Your task to perform on an android device: Go to sound settings Image 0: 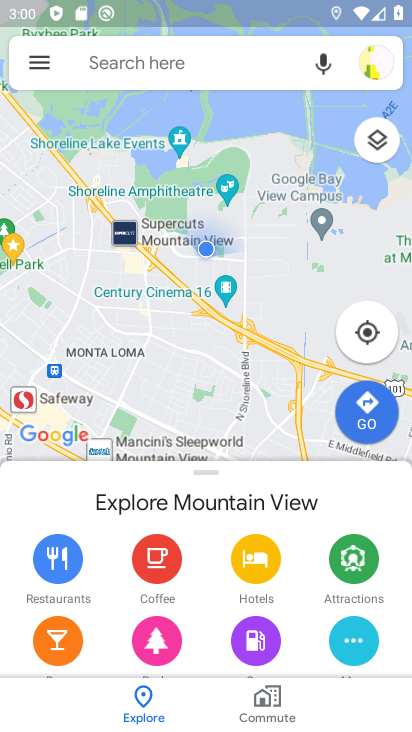
Step 0: press home button
Your task to perform on an android device: Go to sound settings Image 1: 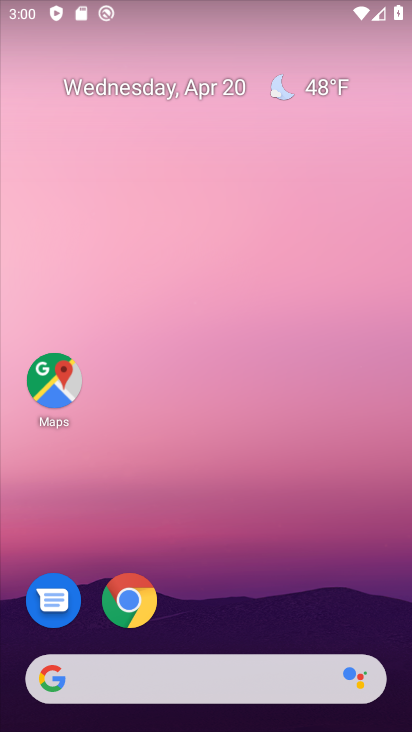
Step 1: drag from (314, 525) to (337, 113)
Your task to perform on an android device: Go to sound settings Image 2: 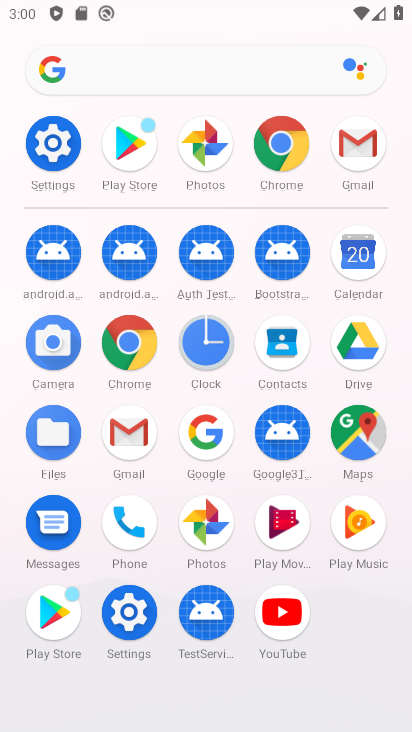
Step 2: click (66, 161)
Your task to perform on an android device: Go to sound settings Image 3: 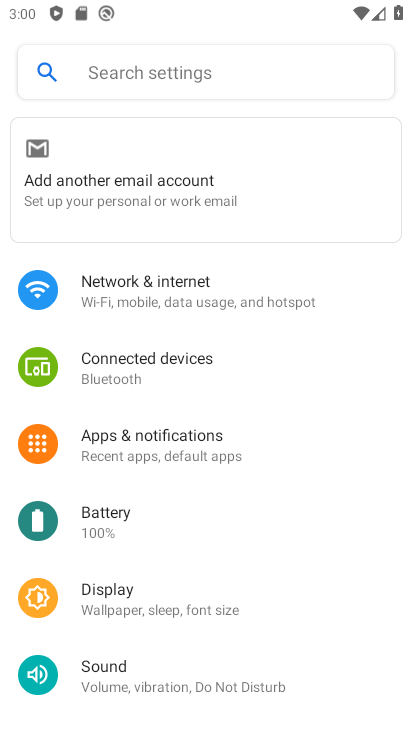
Step 3: drag from (120, 616) to (200, 232)
Your task to perform on an android device: Go to sound settings Image 4: 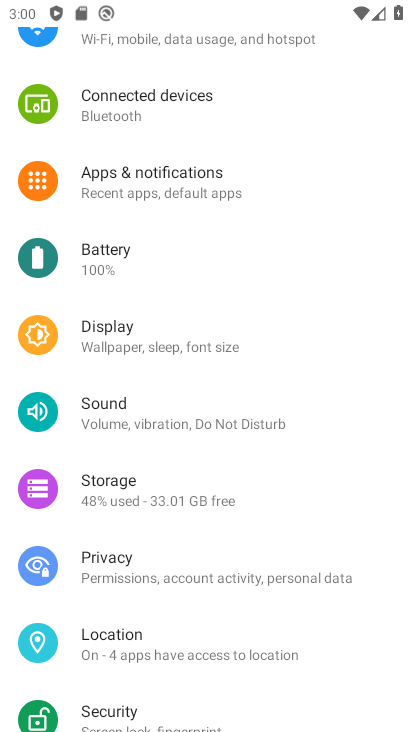
Step 4: click (130, 426)
Your task to perform on an android device: Go to sound settings Image 5: 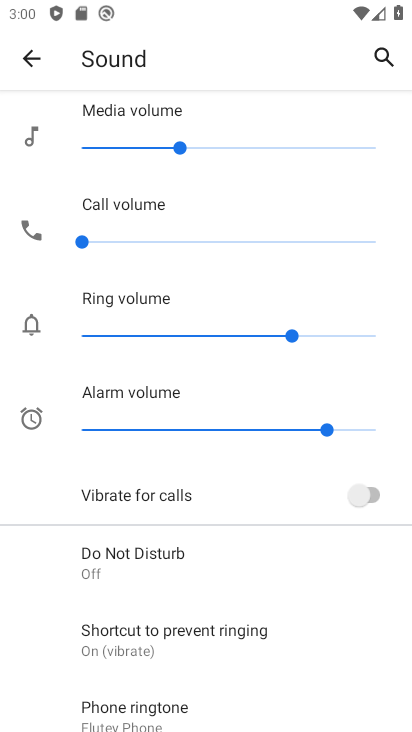
Step 5: task complete